Your task to perform on an android device: Go to wifi settings Image 0: 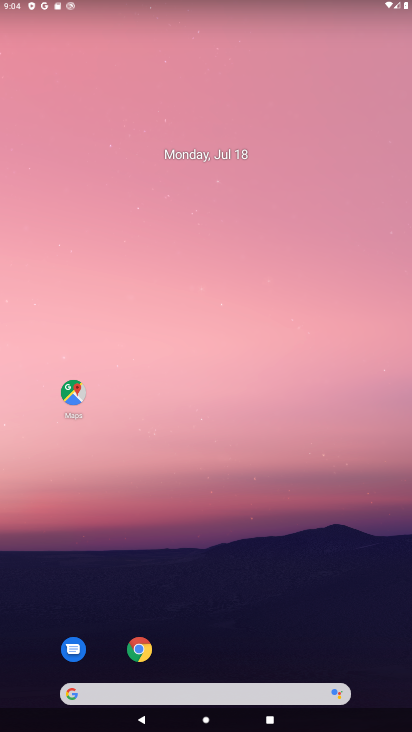
Step 0: drag from (238, 681) to (254, 56)
Your task to perform on an android device: Go to wifi settings Image 1: 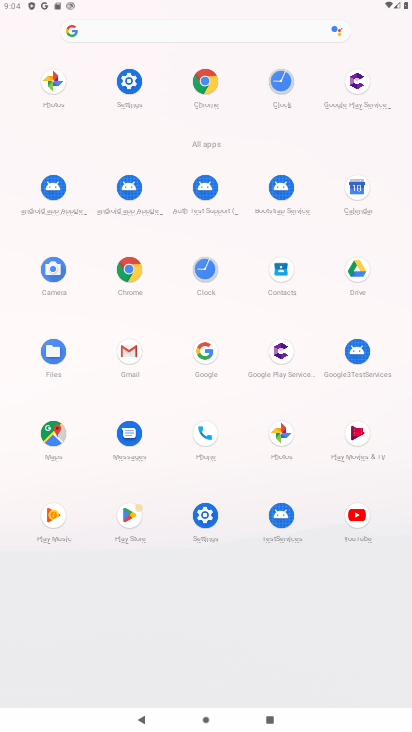
Step 1: click (126, 89)
Your task to perform on an android device: Go to wifi settings Image 2: 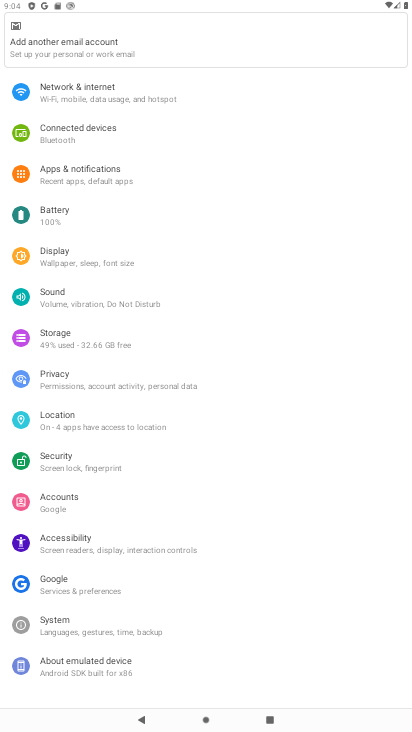
Step 2: click (100, 88)
Your task to perform on an android device: Go to wifi settings Image 3: 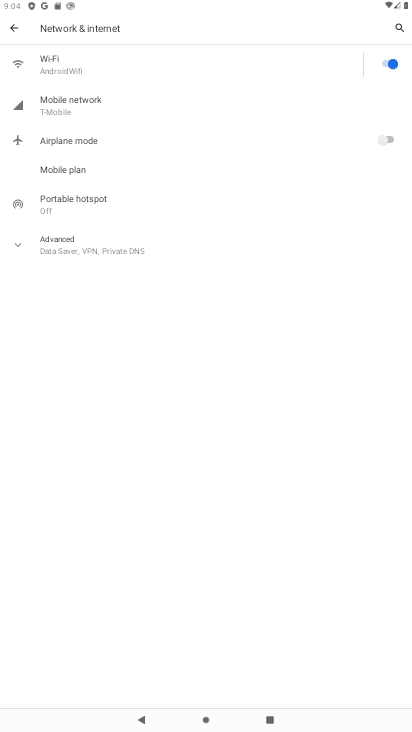
Step 3: task complete